Your task to perform on an android device: find which apps use the phone's location Image 0: 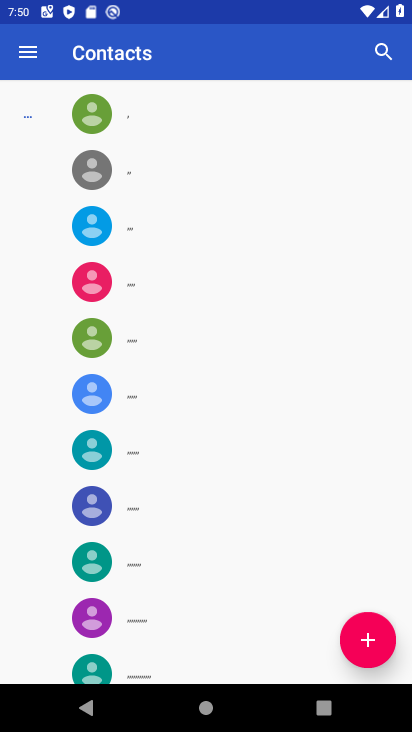
Step 0: press back button
Your task to perform on an android device: find which apps use the phone's location Image 1: 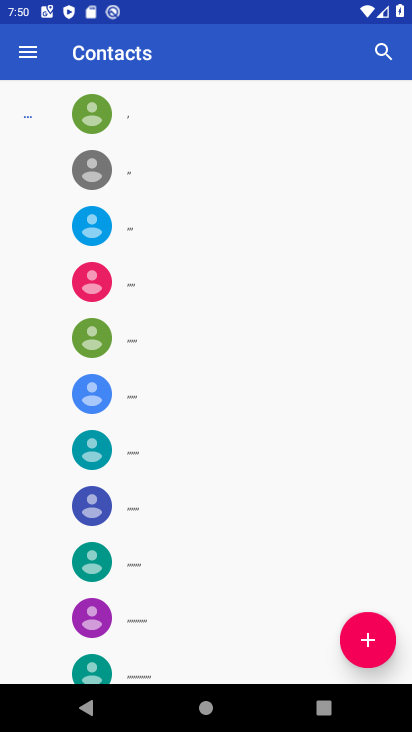
Step 1: press back button
Your task to perform on an android device: find which apps use the phone's location Image 2: 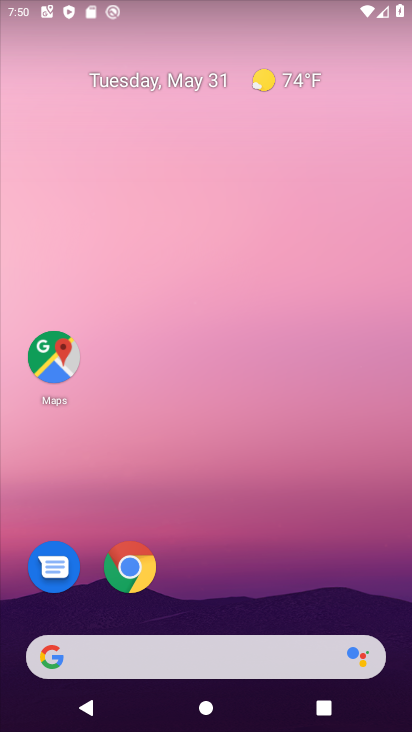
Step 2: drag from (289, 704) to (220, 136)
Your task to perform on an android device: find which apps use the phone's location Image 3: 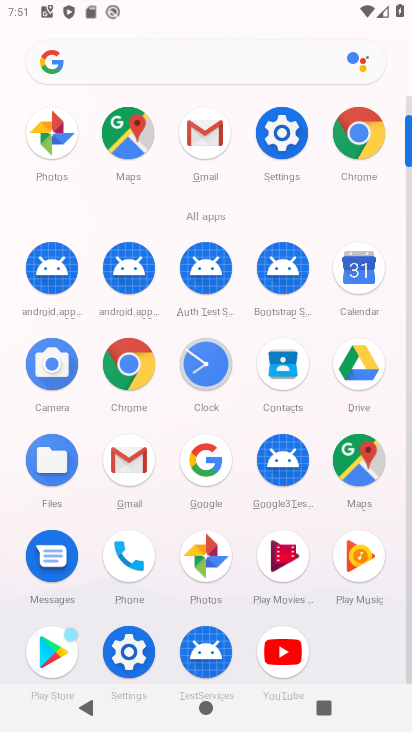
Step 3: click (130, 653)
Your task to perform on an android device: find which apps use the phone's location Image 4: 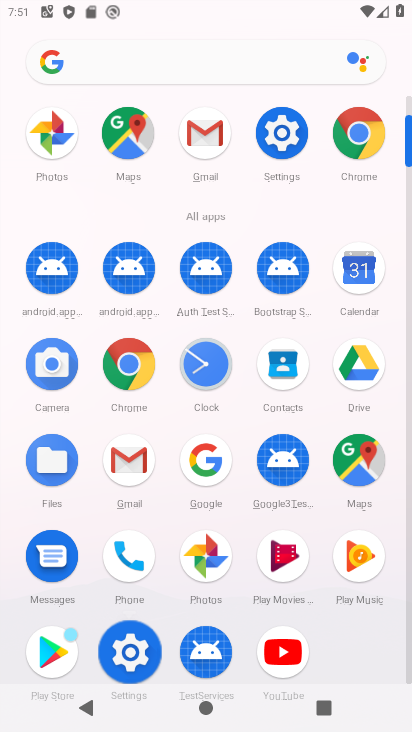
Step 4: click (130, 653)
Your task to perform on an android device: find which apps use the phone's location Image 5: 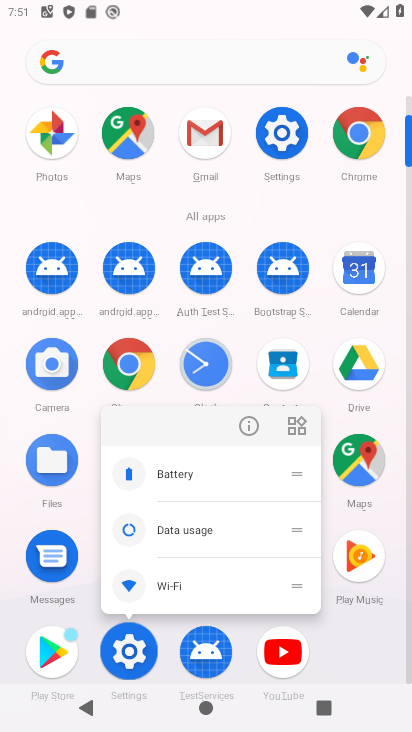
Step 5: click (130, 653)
Your task to perform on an android device: find which apps use the phone's location Image 6: 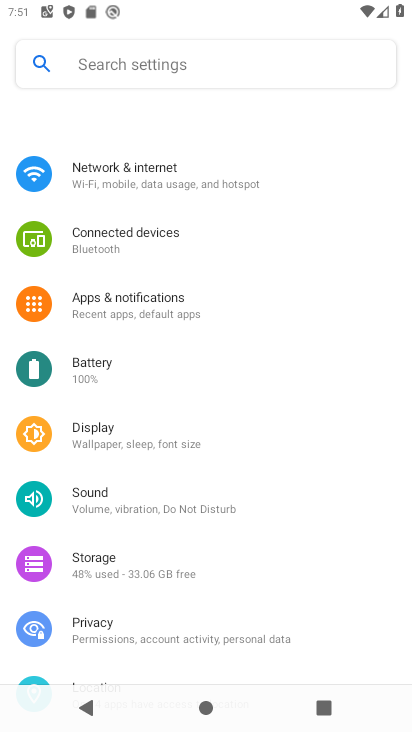
Step 6: click (129, 653)
Your task to perform on an android device: find which apps use the phone's location Image 7: 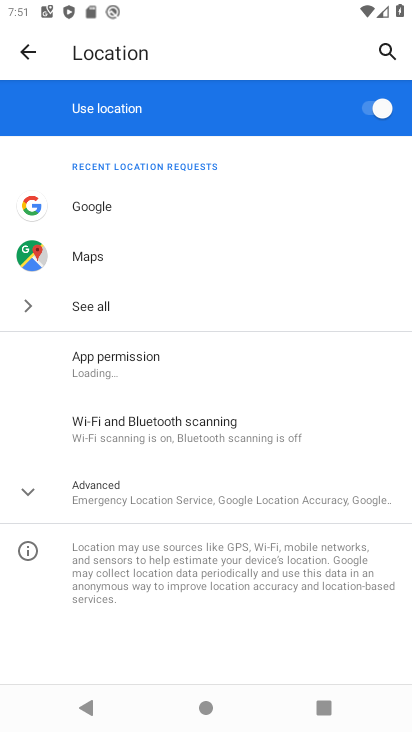
Step 7: click (107, 363)
Your task to perform on an android device: find which apps use the phone's location Image 8: 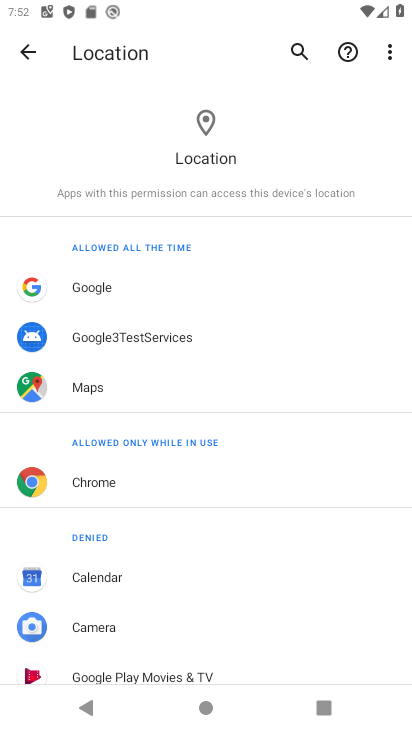
Step 8: click (22, 52)
Your task to perform on an android device: find which apps use the phone's location Image 9: 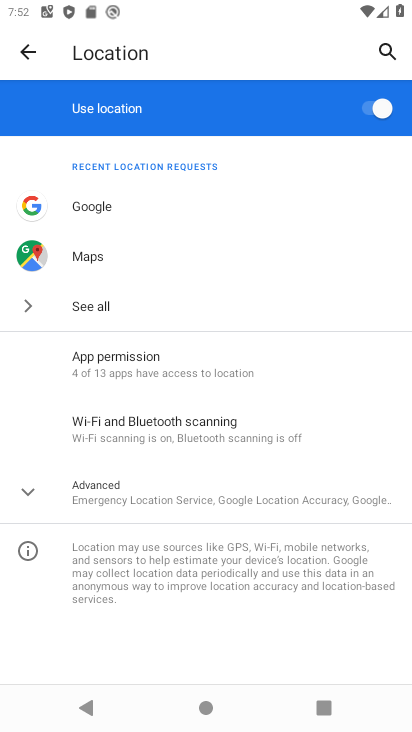
Step 9: click (107, 487)
Your task to perform on an android device: find which apps use the phone's location Image 10: 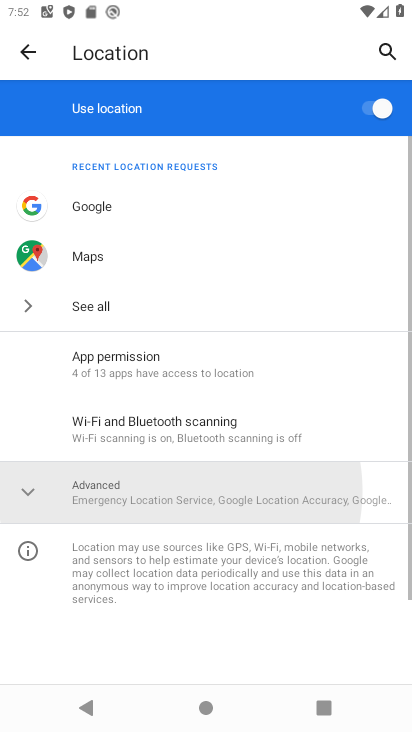
Step 10: click (107, 487)
Your task to perform on an android device: find which apps use the phone's location Image 11: 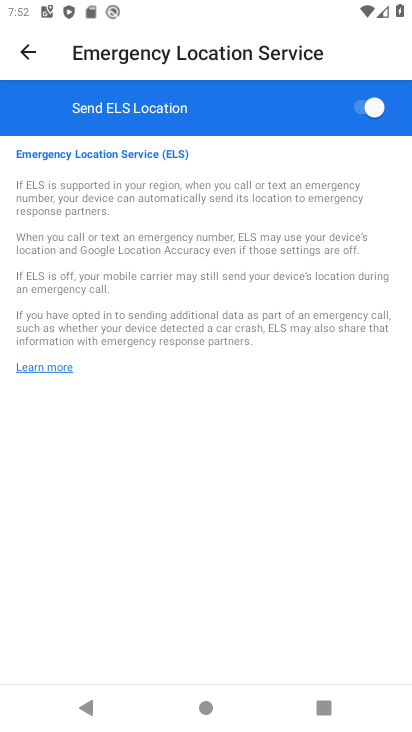
Step 11: click (36, 48)
Your task to perform on an android device: find which apps use the phone's location Image 12: 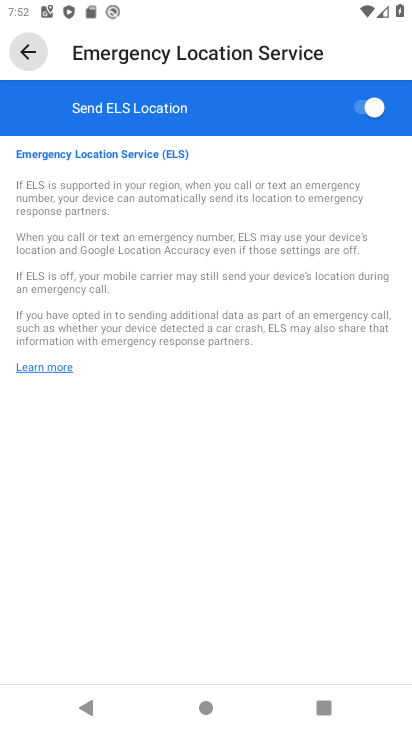
Step 12: click (35, 49)
Your task to perform on an android device: find which apps use the phone's location Image 13: 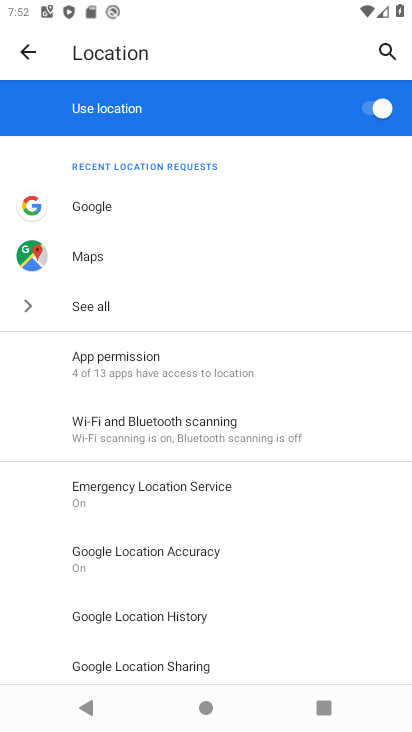
Step 13: click (28, 52)
Your task to perform on an android device: find which apps use the phone's location Image 14: 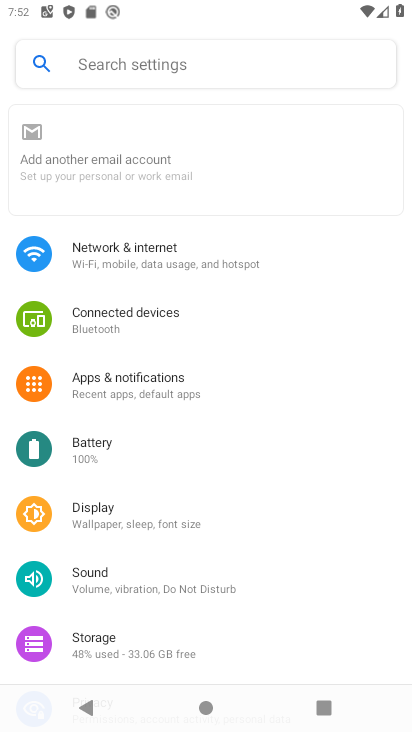
Step 14: task complete